Your task to perform on an android device: allow notifications from all sites in the chrome app Image 0: 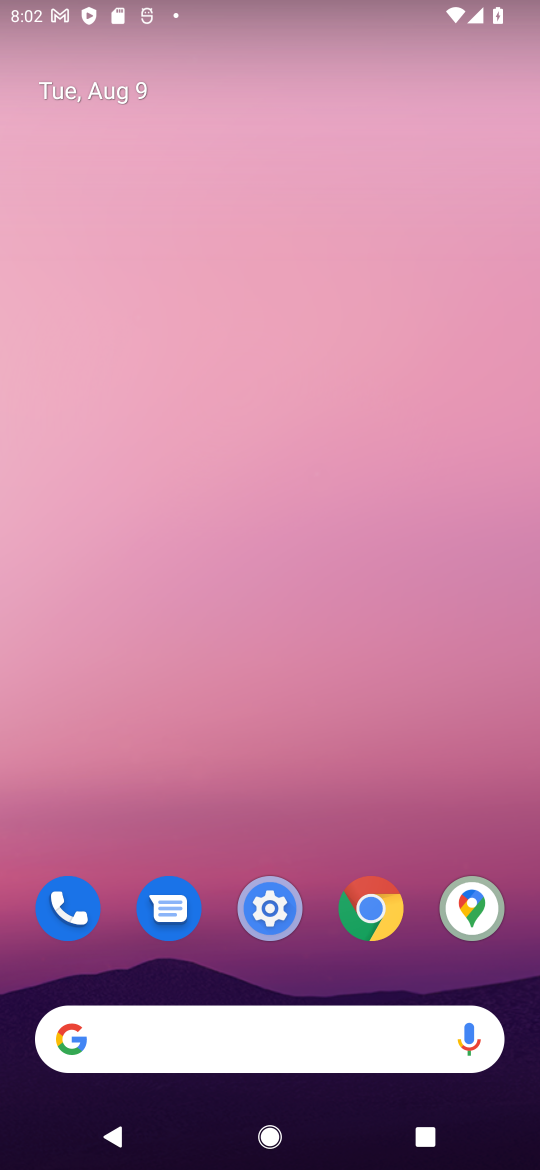
Step 0: click (376, 904)
Your task to perform on an android device: allow notifications from all sites in the chrome app Image 1: 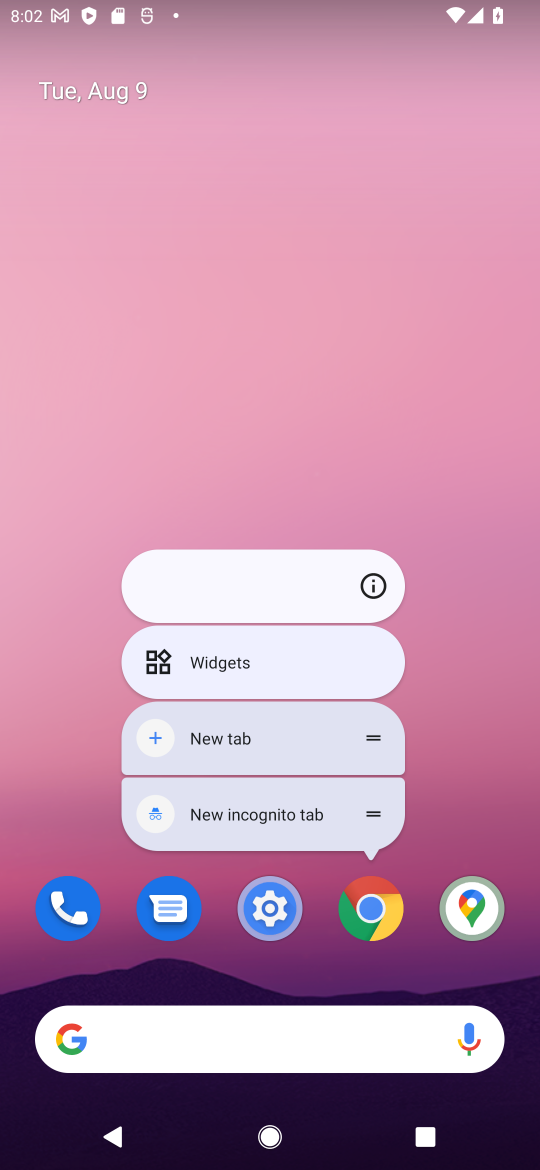
Step 1: click (373, 904)
Your task to perform on an android device: allow notifications from all sites in the chrome app Image 2: 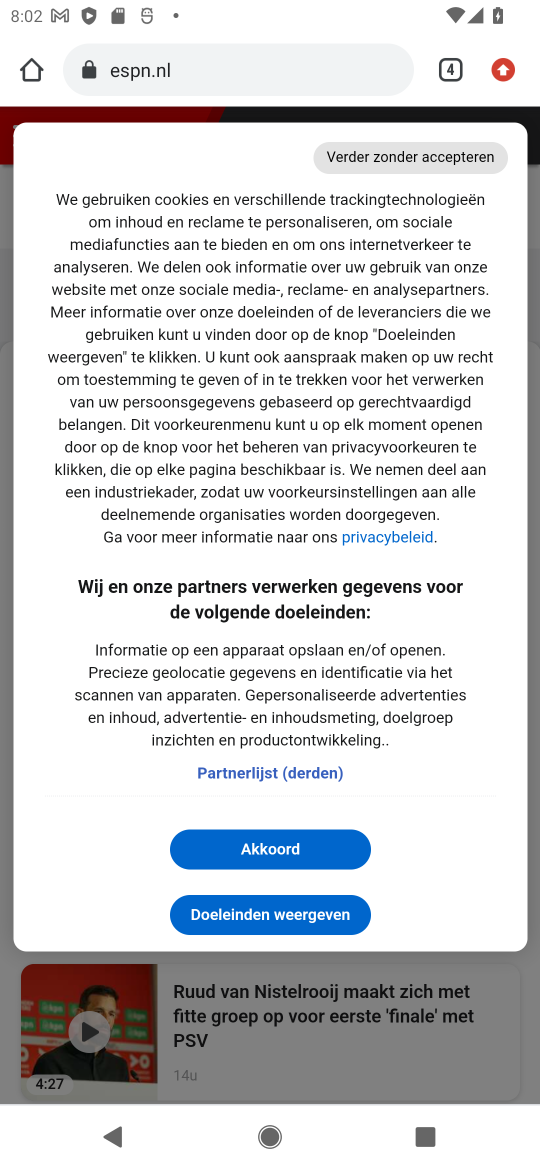
Step 2: click (506, 71)
Your task to perform on an android device: allow notifications from all sites in the chrome app Image 3: 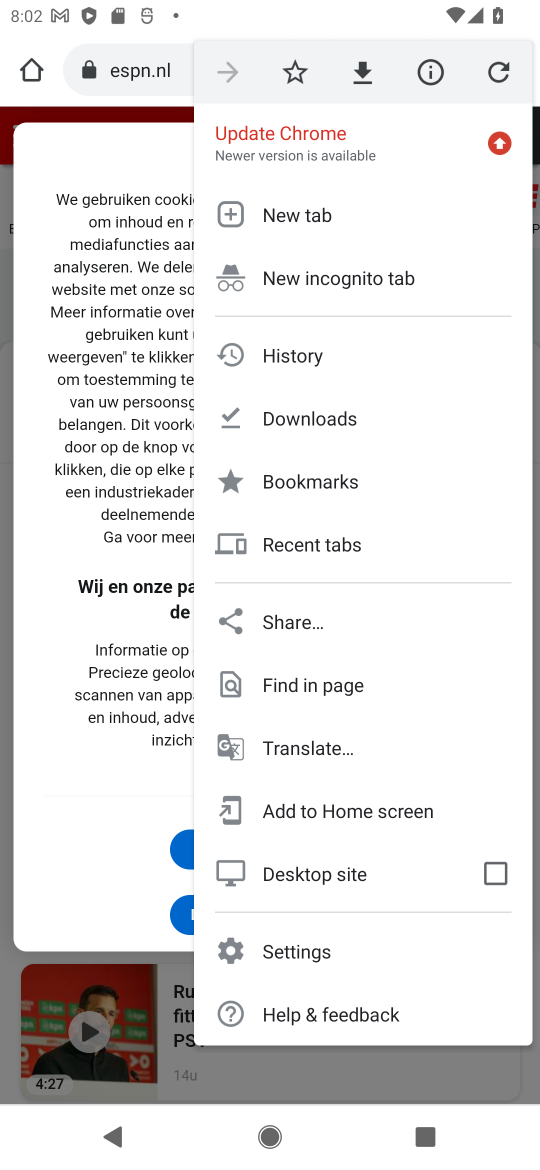
Step 3: click (287, 950)
Your task to perform on an android device: allow notifications from all sites in the chrome app Image 4: 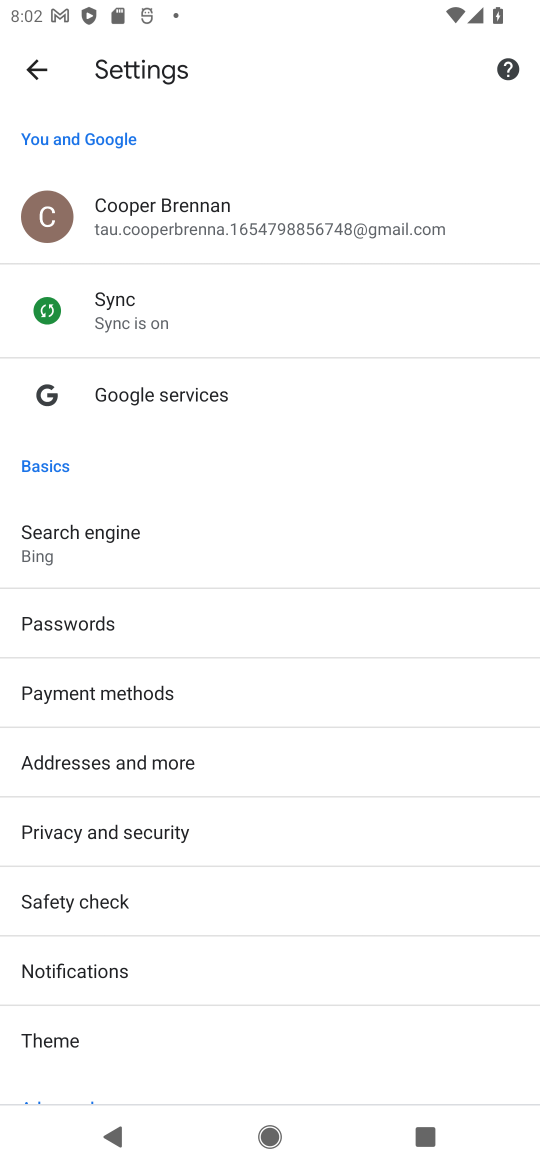
Step 4: drag from (134, 1012) to (148, 582)
Your task to perform on an android device: allow notifications from all sites in the chrome app Image 5: 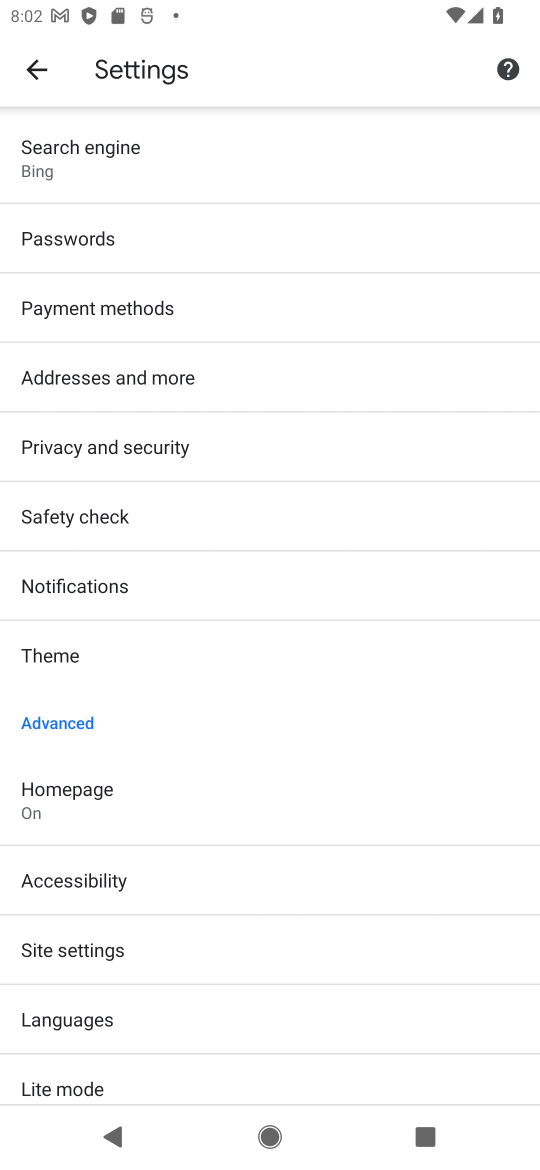
Step 5: click (94, 945)
Your task to perform on an android device: allow notifications from all sites in the chrome app Image 6: 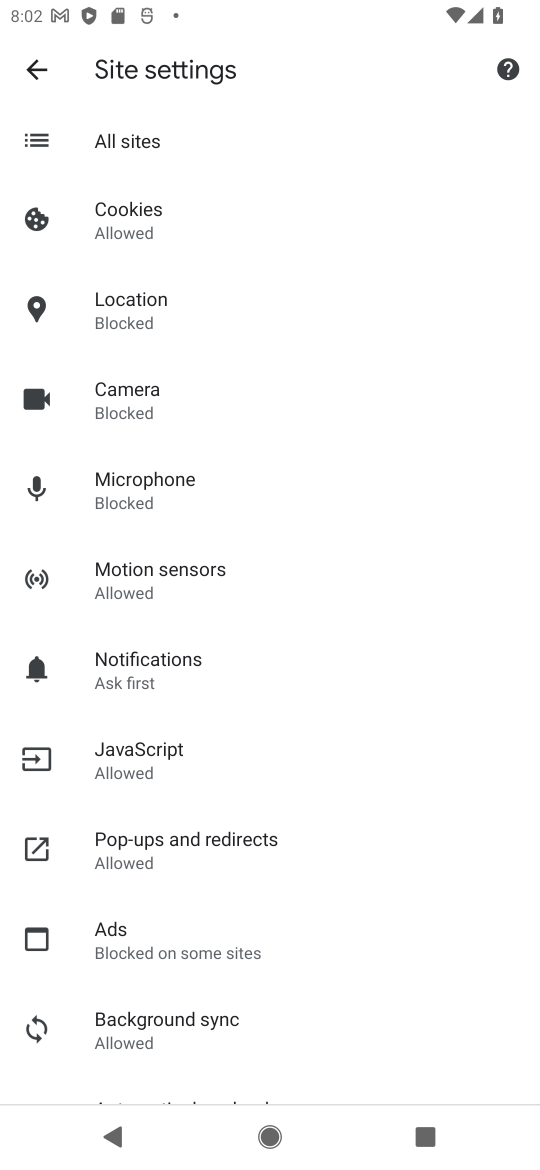
Step 6: click (151, 651)
Your task to perform on an android device: allow notifications from all sites in the chrome app Image 7: 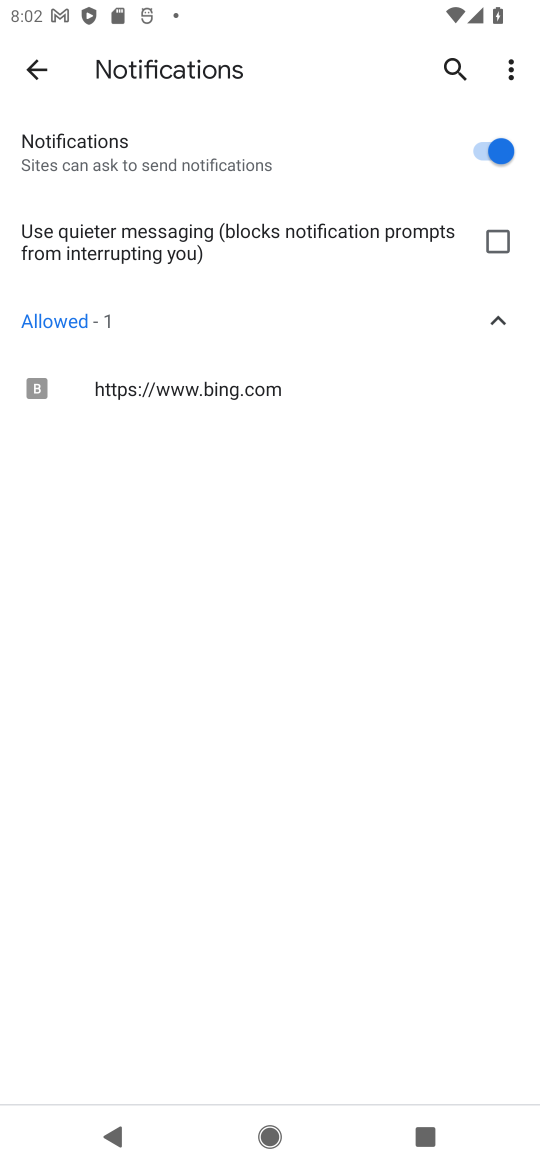
Step 7: task complete